Your task to perform on an android device: Open calendar and show me the second week of next month Image 0: 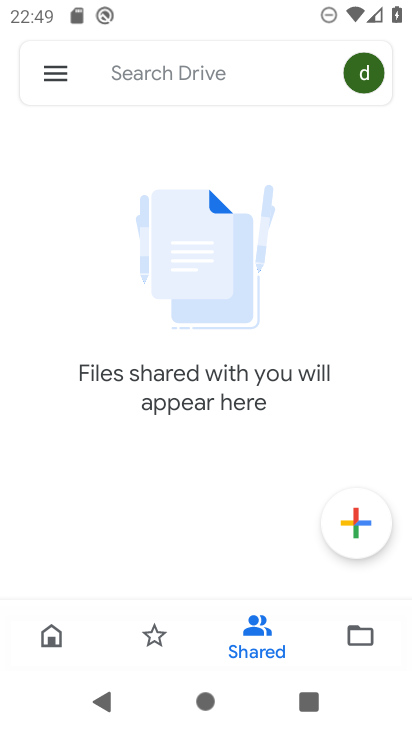
Step 0: press home button
Your task to perform on an android device: Open calendar and show me the second week of next month Image 1: 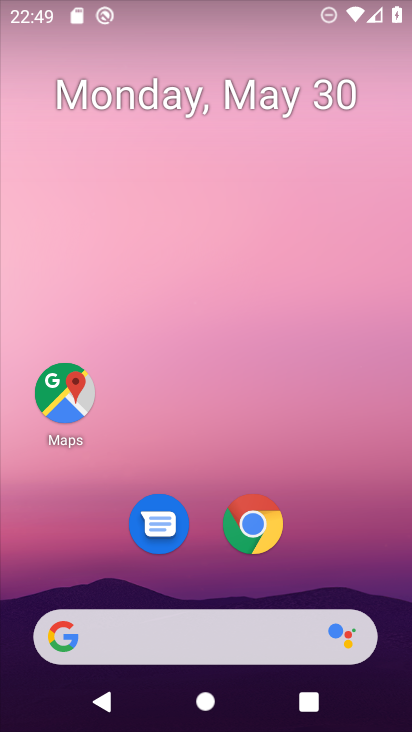
Step 1: drag from (310, 565) to (298, 24)
Your task to perform on an android device: Open calendar and show me the second week of next month Image 2: 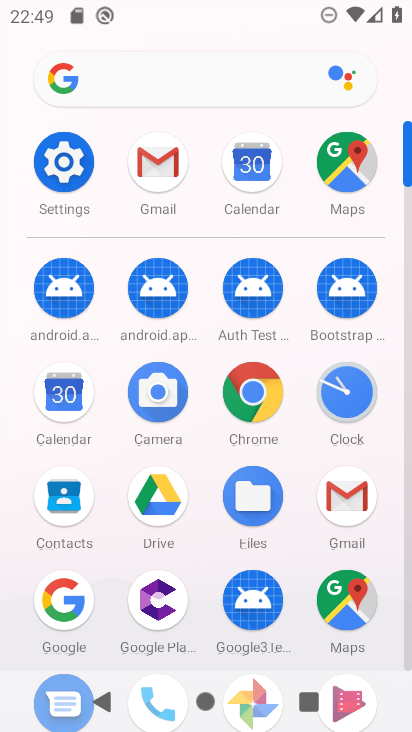
Step 2: click (57, 413)
Your task to perform on an android device: Open calendar and show me the second week of next month Image 3: 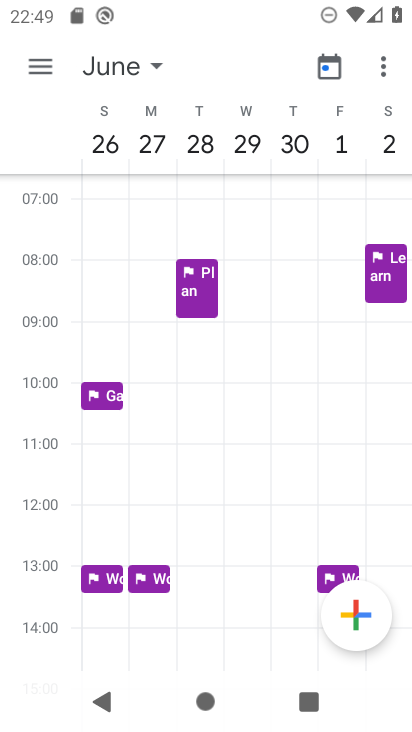
Step 3: task complete